Your task to perform on an android device: Go to location settings Image 0: 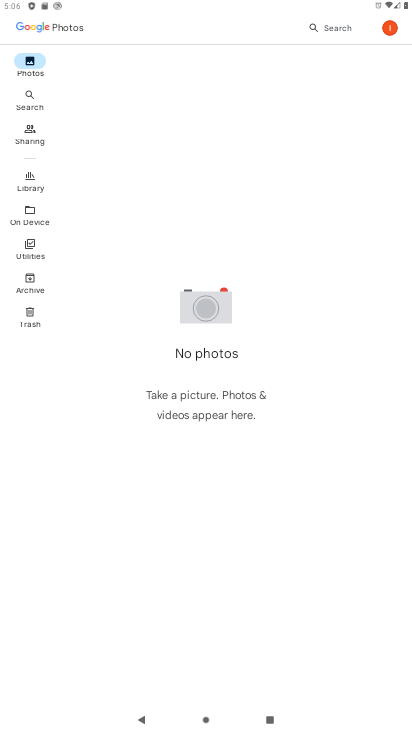
Step 0: press home button
Your task to perform on an android device: Go to location settings Image 1: 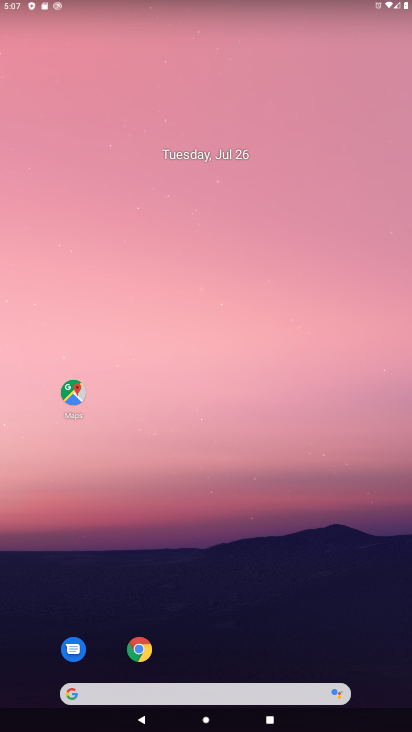
Step 1: drag from (261, 625) to (222, 76)
Your task to perform on an android device: Go to location settings Image 2: 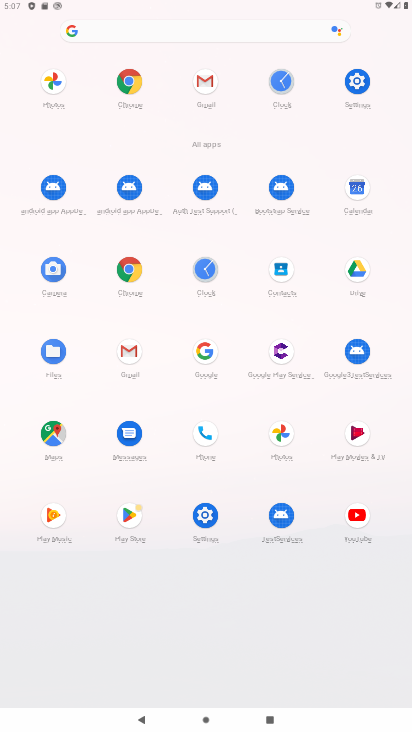
Step 2: click (359, 84)
Your task to perform on an android device: Go to location settings Image 3: 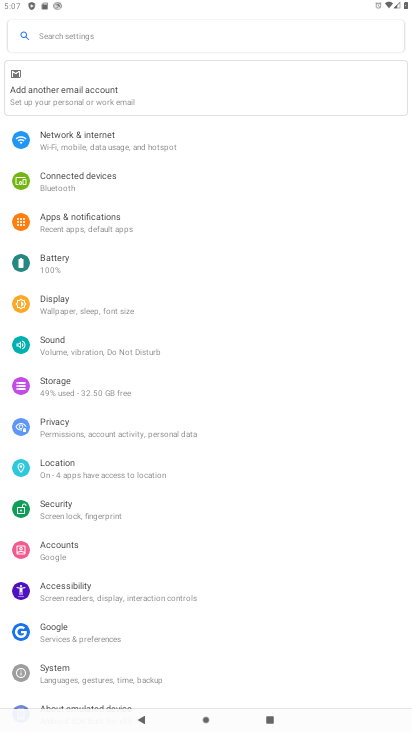
Step 3: click (167, 465)
Your task to perform on an android device: Go to location settings Image 4: 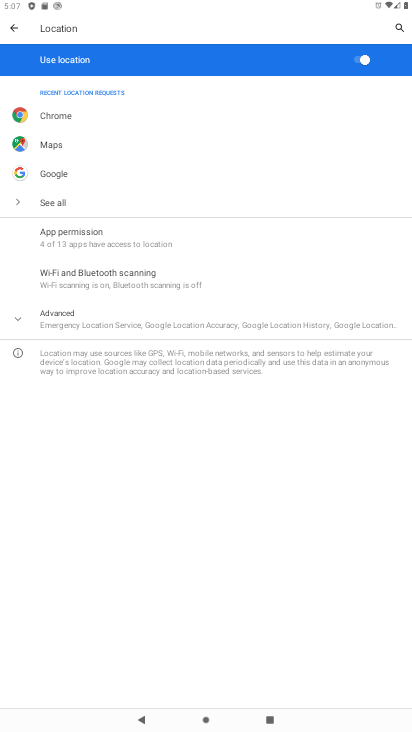
Step 4: task complete